Your task to perform on an android device: turn off smart reply in the gmail app Image 0: 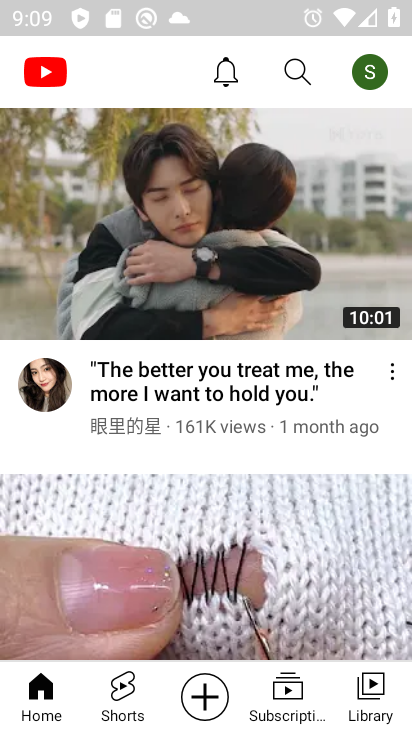
Step 0: press home button
Your task to perform on an android device: turn off smart reply in the gmail app Image 1: 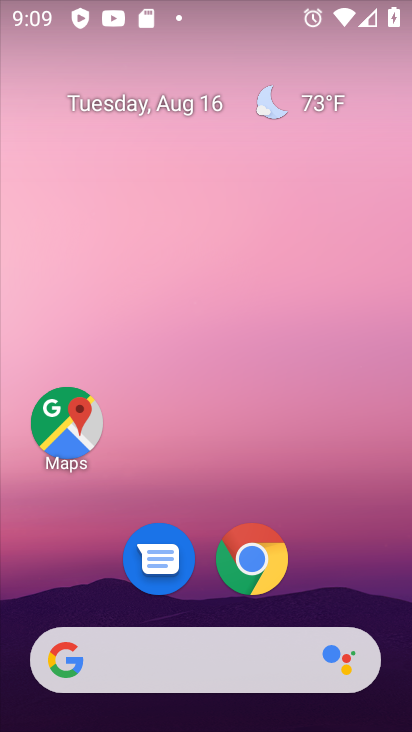
Step 1: drag from (172, 660) to (206, 163)
Your task to perform on an android device: turn off smart reply in the gmail app Image 2: 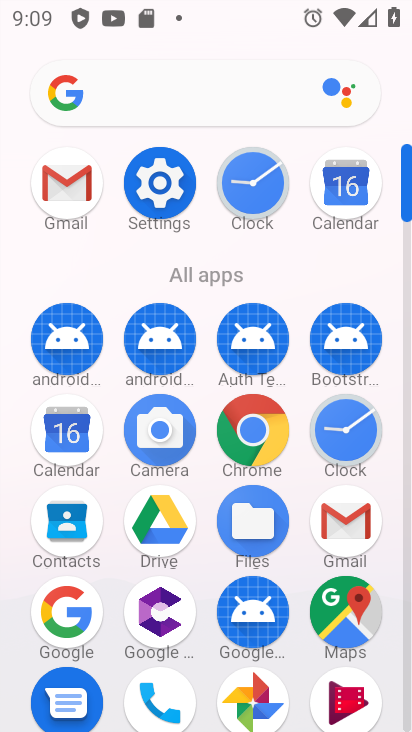
Step 2: click (64, 183)
Your task to perform on an android device: turn off smart reply in the gmail app Image 3: 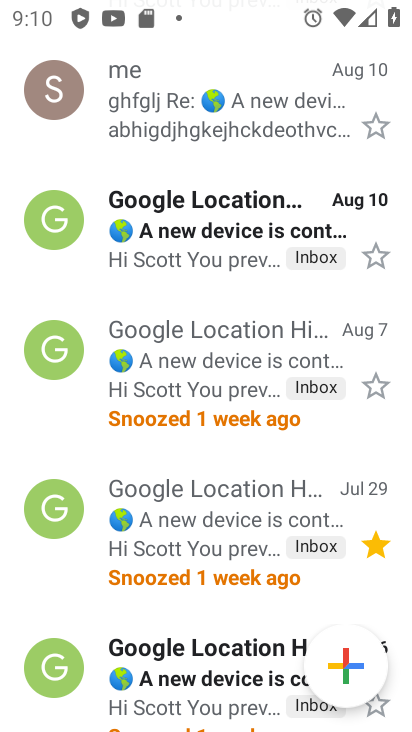
Step 3: drag from (191, 160) to (183, 602)
Your task to perform on an android device: turn off smart reply in the gmail app Image 4: 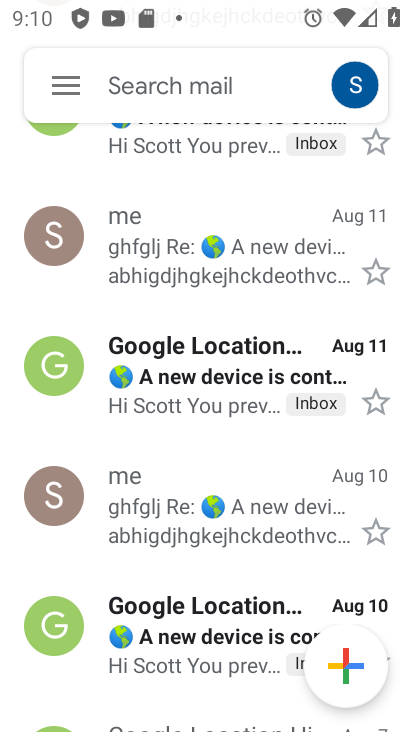
Step 4: click (69, 88)
Your task to perform on an android device: turn off smart reply in the gmail app Image 5: 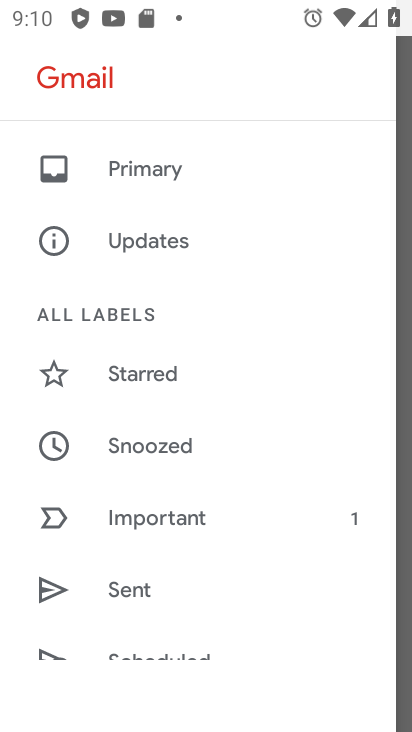
Step 5: drag from (156, 552) to (219, 434)
Your task to perform on an android device: turn off smart reply in the gmail app Image 6: 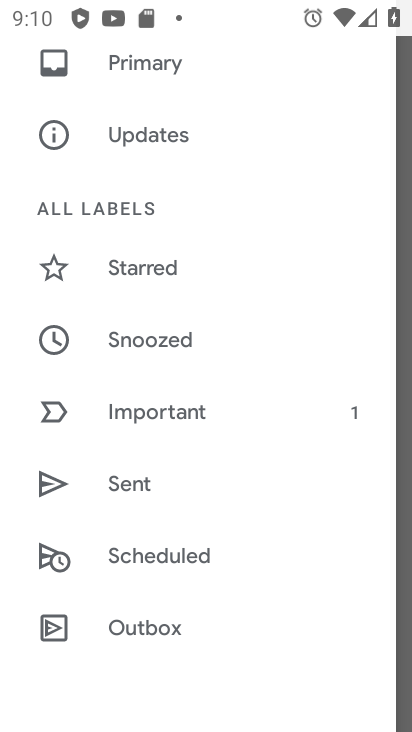
Step 6: drag from (134, 596) to (218, 455)
Your task to perform on an android device: turn off smart reply in the gmail app Image 7: 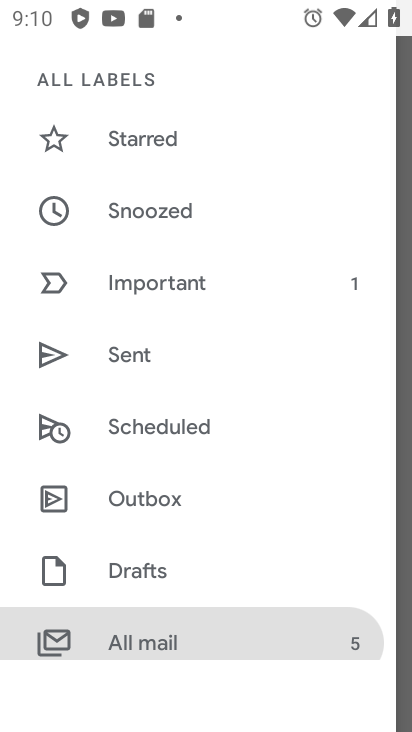
Step 7: drag from (192, 579) to (239, 436)
Your task to perform on an android device: turn off smart reply in the gmail app Image 8: 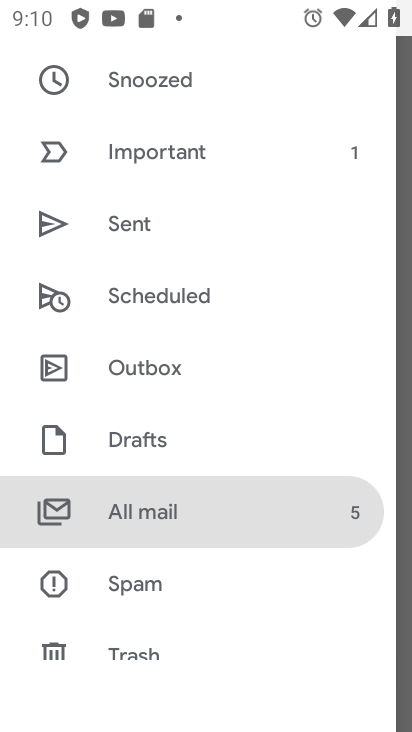
Step 8: drag from (209, 627) to (242, 388)
Your task to perform on an android device: turn off smart reply in the gmail app Image 9: 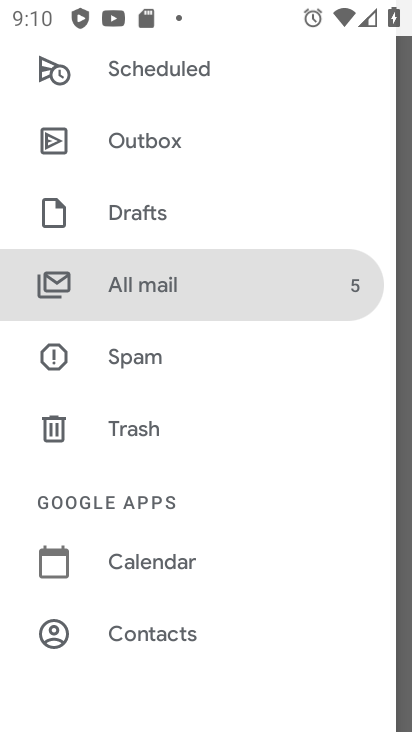
Step 9: drag from (205, 587) to (240, 441)
Your task to perform on an android device: turn off smart reply in the gmail app Image 10: 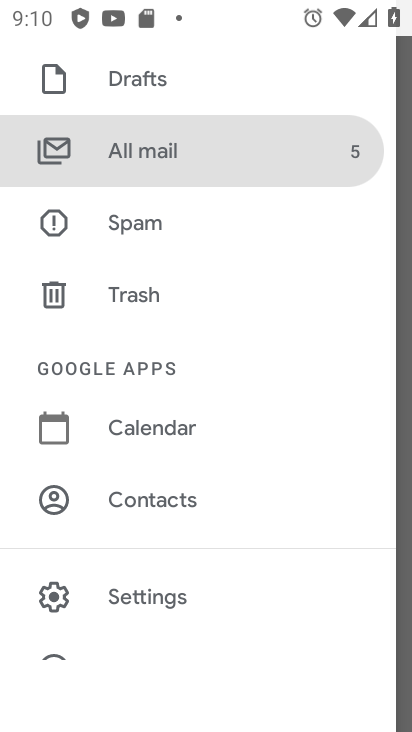
Step 10: drag from (196, 570) to (231, 469)
Your task to perform on an android device: turn off smart reply in the gmail app Image 11: 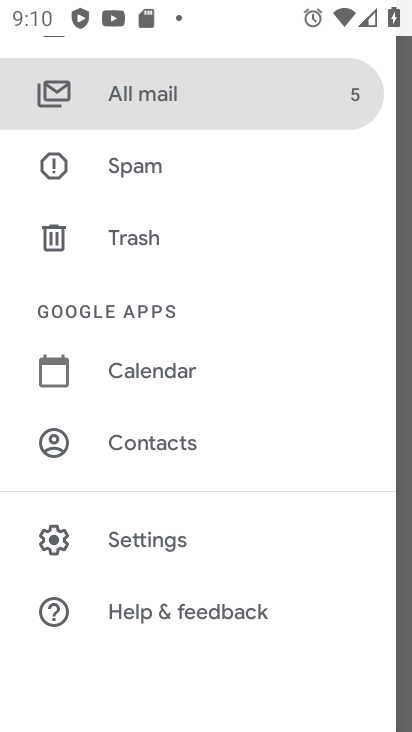
Step 11: click (159, 546)
Your task to perform on an android device: turn off smart reply in the gmail app Image 12: 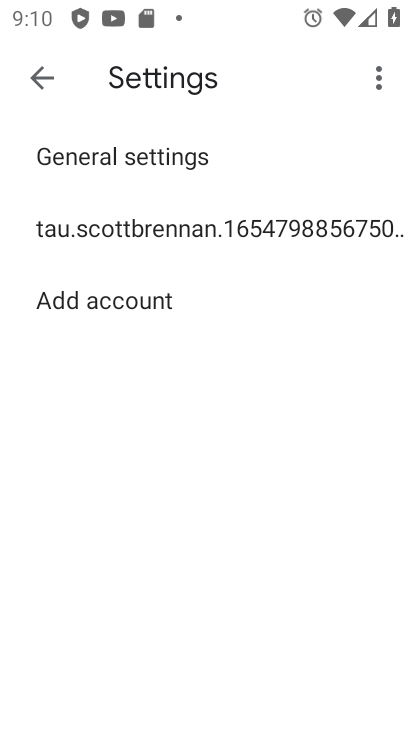
Step 12: click (231, 232)
Your task to perform on an android device: turn off smart reply in the gmail app Image 13: 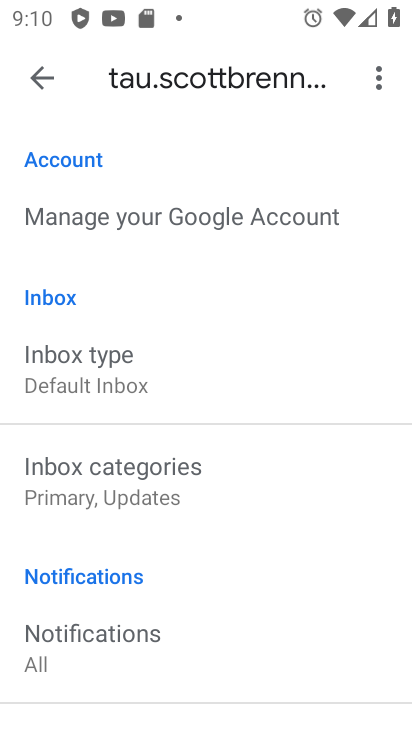
Step 13: drag from (246, 536) to (325, 383)
Your task to perform on an android device: turn off smart reply in the gmail app Image 14: 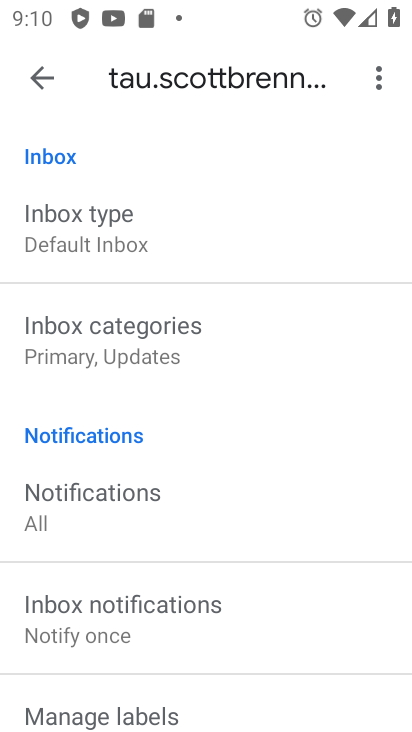
Step 14: drag from (235, 619) to (302, 501)
Your task to perform on an android device: turn off smart reply in the gmail app Image 15: 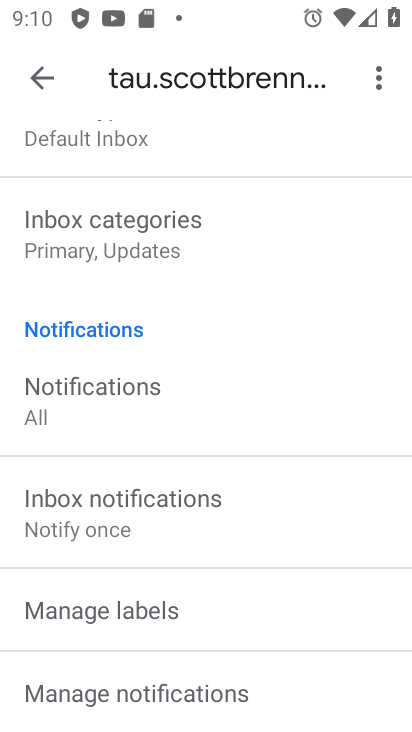
Step 15: drag from (248, 626) to (305, 511)
Your task to perform on an android device: turn off smart reply in the gmail app Image 16: 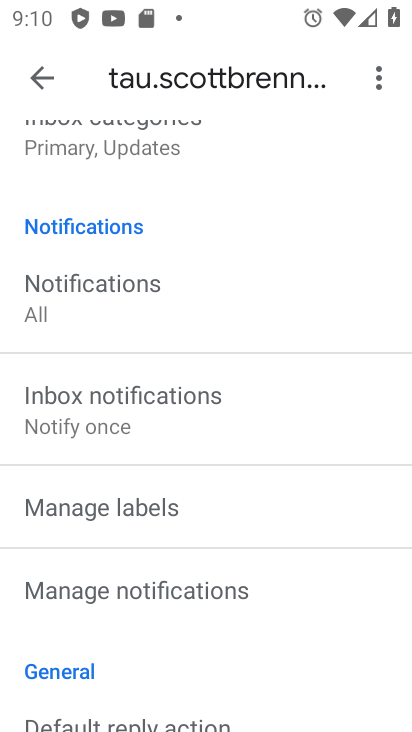
Step 16: drag from (210, 641) to (270, 506)
Your task to perform on an android device: turn off smart reply in the gmail app Image 17: 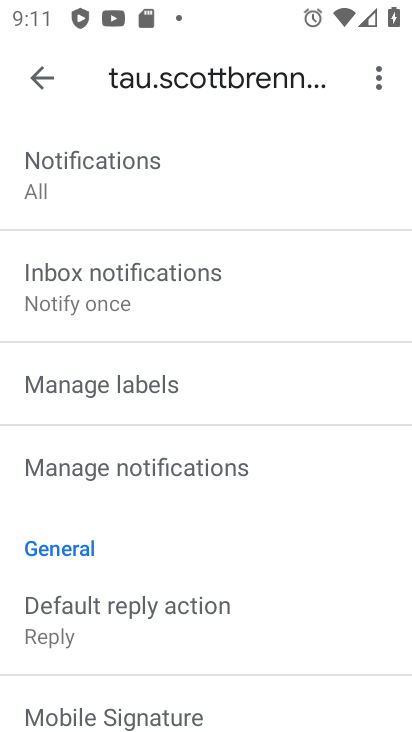
Step 17: drag from (152, 632) to (237, 500)
Your task to perform on an android device: turn off smart reply in the gmail app Image 18: 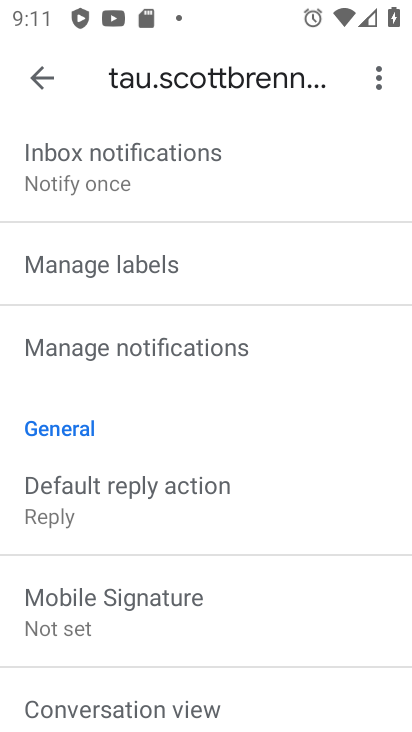
Step 18: drag from (179, 672) to (267, 535)
Your task to perform on an android device: turn off smart reply in the gmail app Image 19: 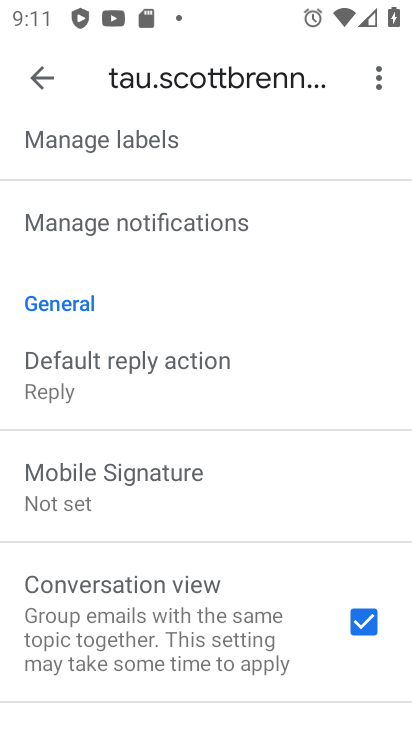
Step 19: drag from (192, 704) to (268, 551)
Your task to perform on an android device: turn off smart reply in the gmail app Image 20: 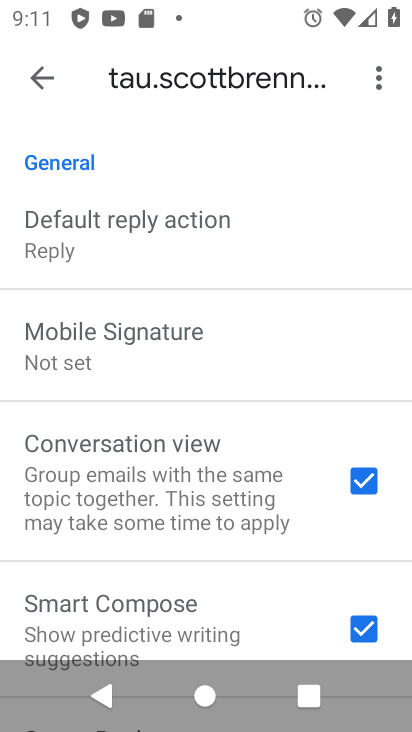
Step 20: drag from (232, 616) to (305, 432)
Your task to perform on an android device: turn off smart reply in the gmail app Image 21: 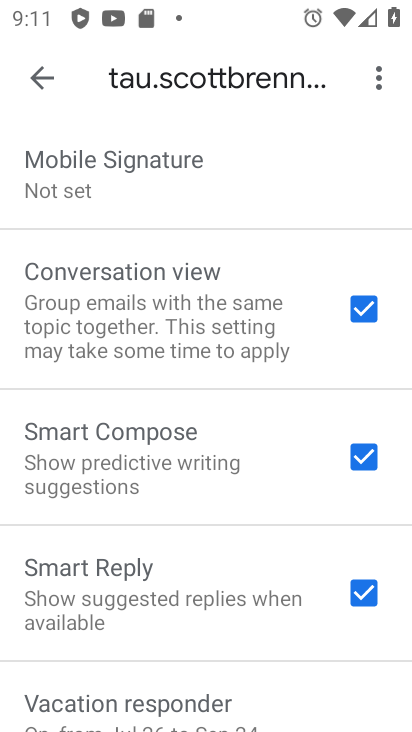
Step 21: click (360, 596)
Your task to perform on an android device: turn off smart reply in the gmail app Image 22: 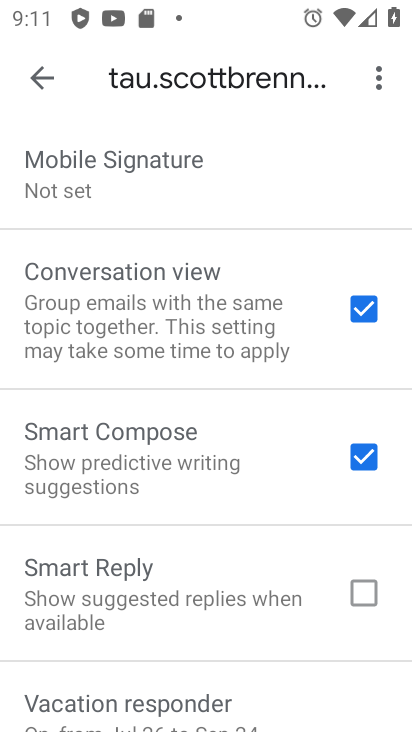
Step 22: task complete